Your task to perform on an android device: check data usage Image 0: 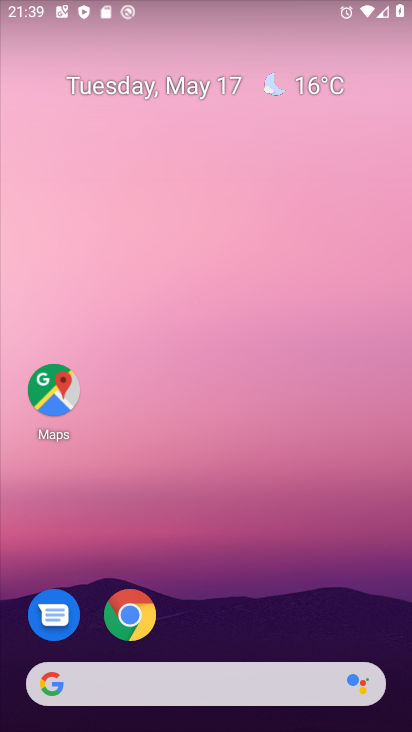
Step 0: drag from (345, 8) to (318, 506)
Your task to perform on an android device: check data usage Image 1: 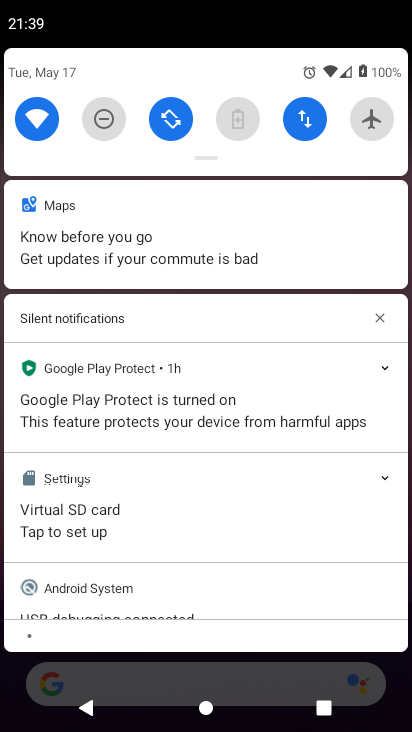
Step 1: click (293, 119)
Your task to perform on an android device: check data usage Image 2: 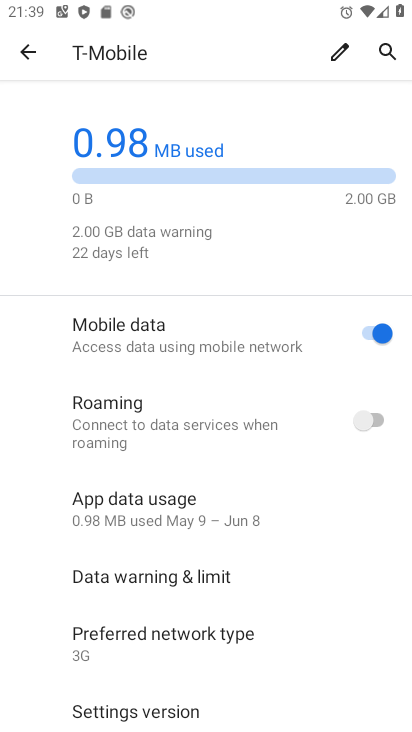
Step 2: task complete